Your task to perform on an android device: uninstall "DuckDuckGo Privacy Browser" Image 0: 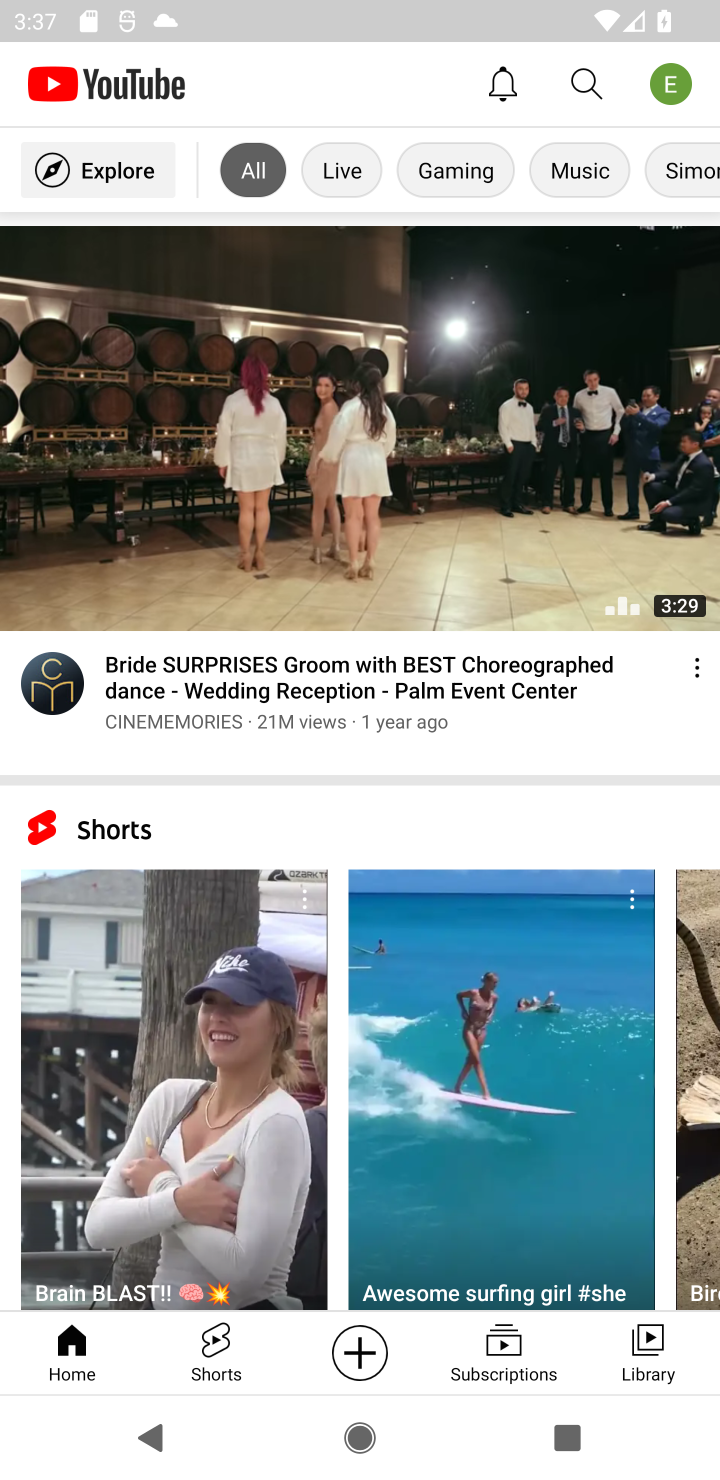
Step 0: press home button
Your task to perform on an android device: uninstall "DuckDuckGo Privacy Browser" Image 1: 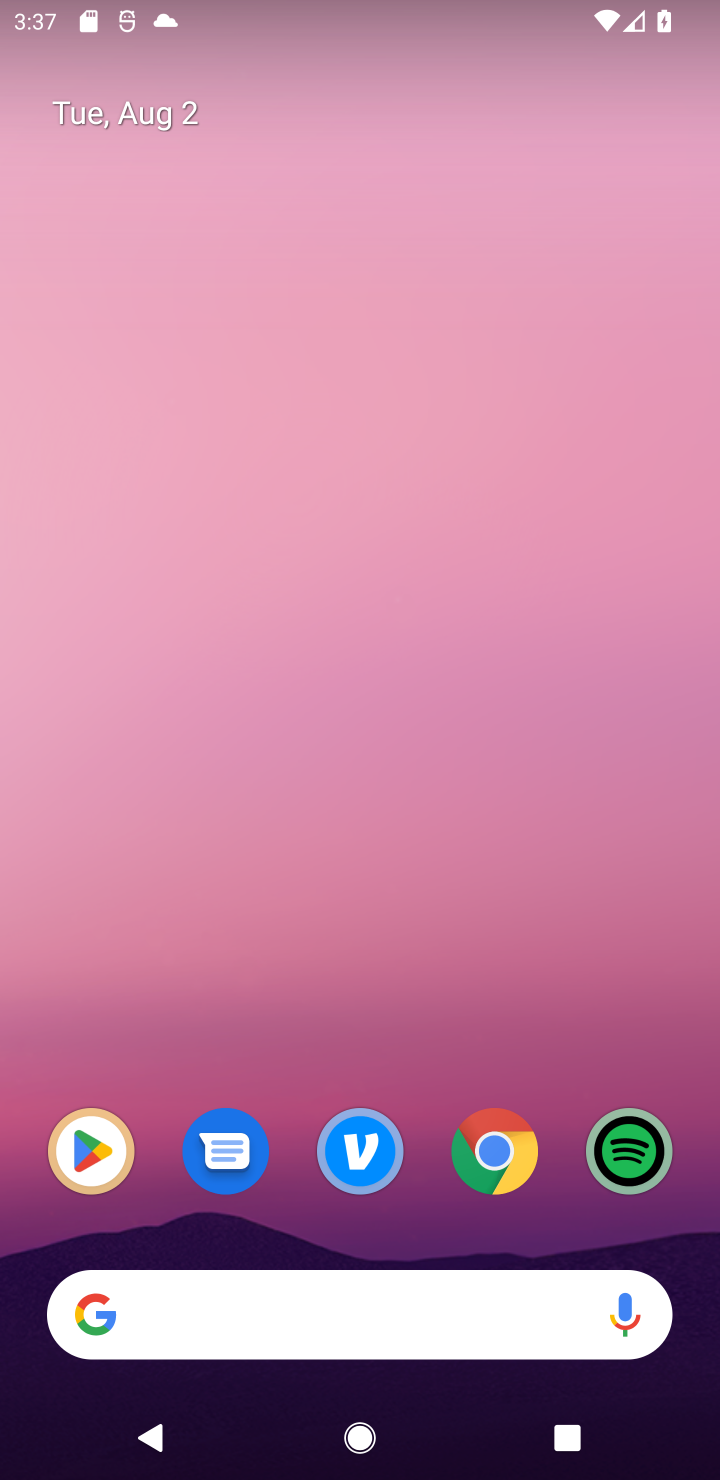
Step 1: click (498, 923)
Your task to perform on an android device: uninstall "DuckDuckGo Privacy Browser" Image 2: 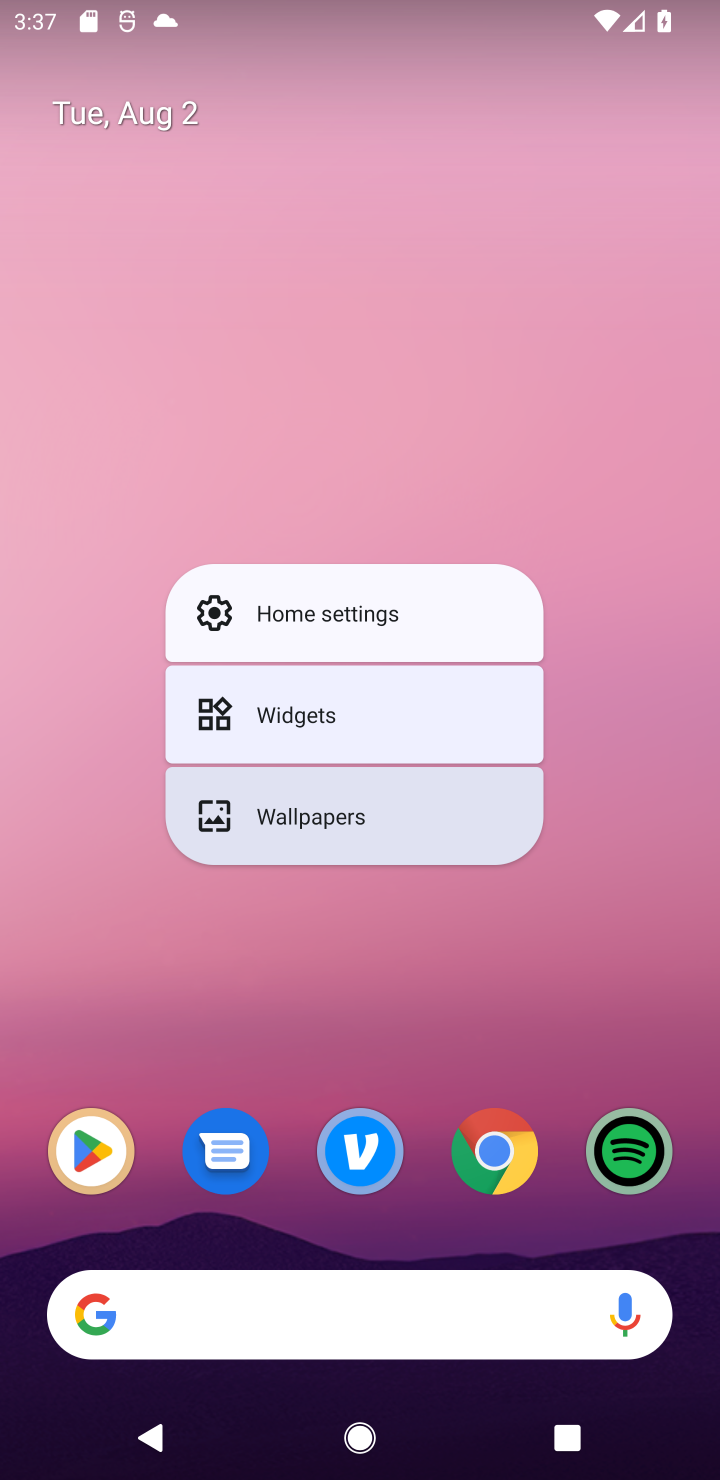
Step 2: click (656, 940)
Your task to perform on an android device: uninstall "DuckDuckGo Privacy Browser" Image 3: 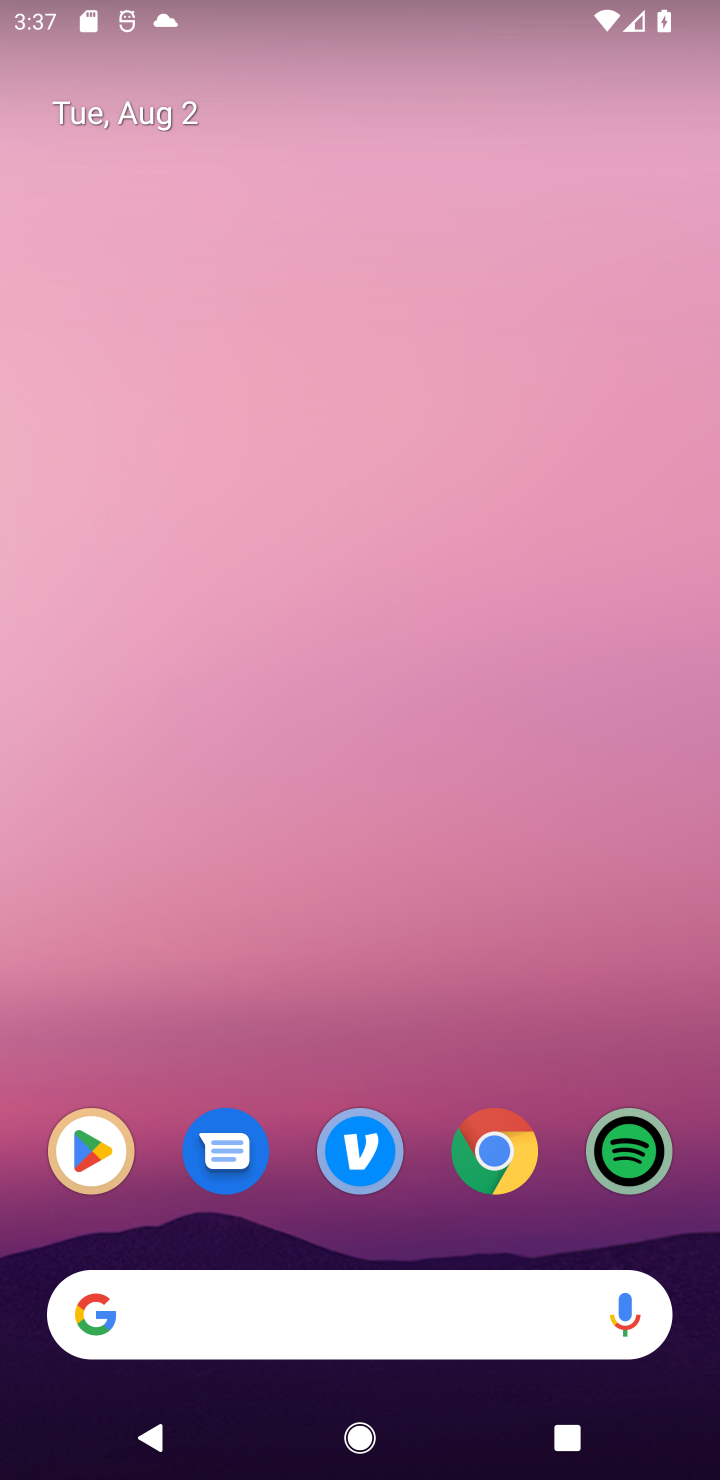
Step 3: drag from (319, 1322) to (332, 368)
Your task to perform on an android device: uninstall "DuckDuckGo Privacy Browser" Image 4: 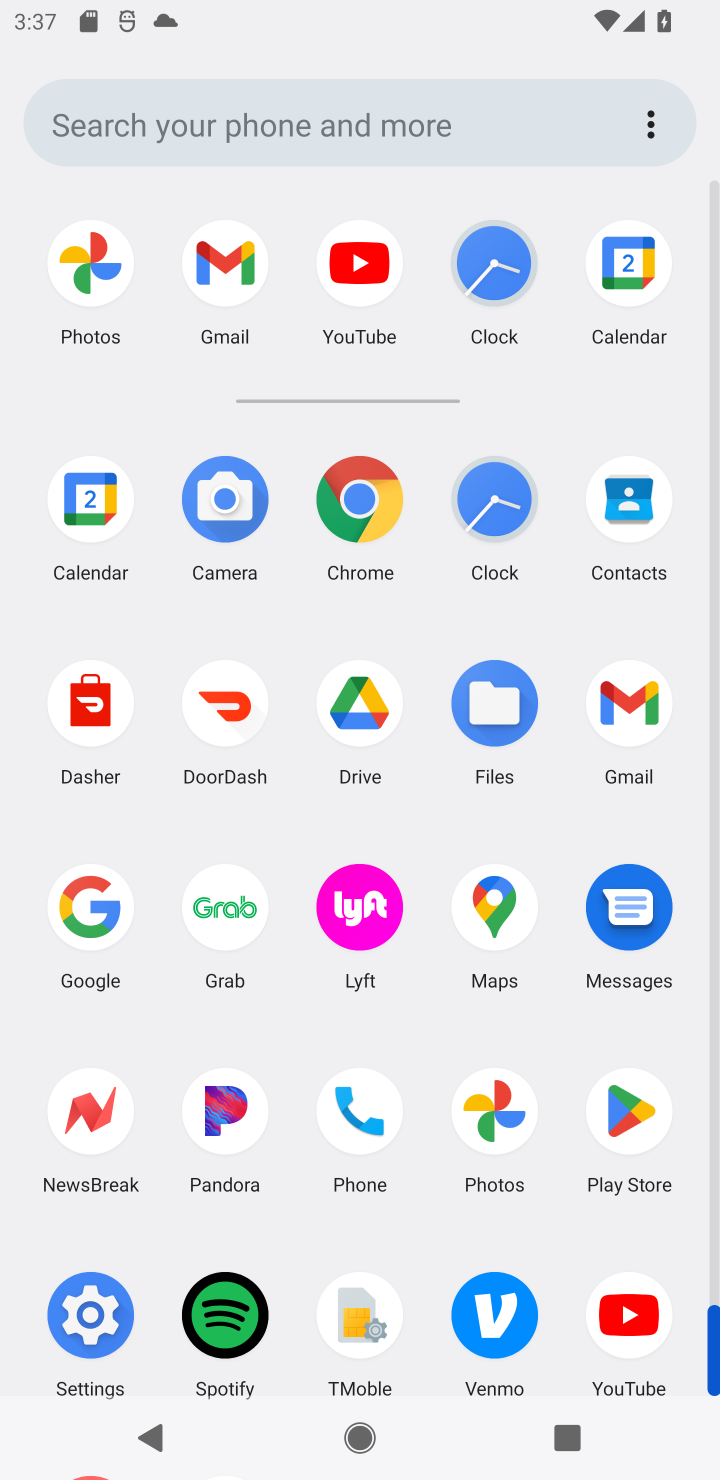
Step 4: click (628, 1142)
Your task to perform on an android device: uninstall "DuckDuckGo Privacy Browser" Image 5: 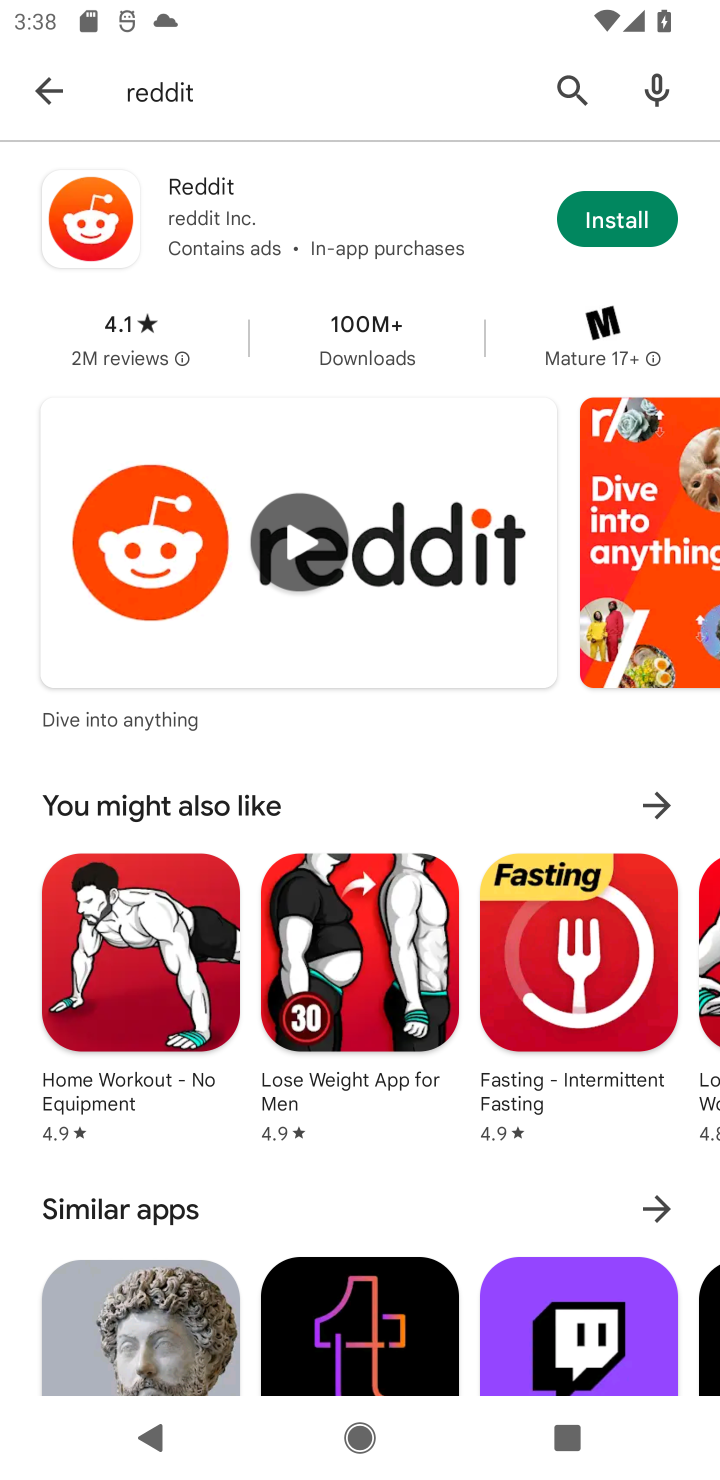
Step 5: click (54, 109)
Your task to perform on an android device: uninstall "DuckDuckGo Privacy Browser" Image 6: 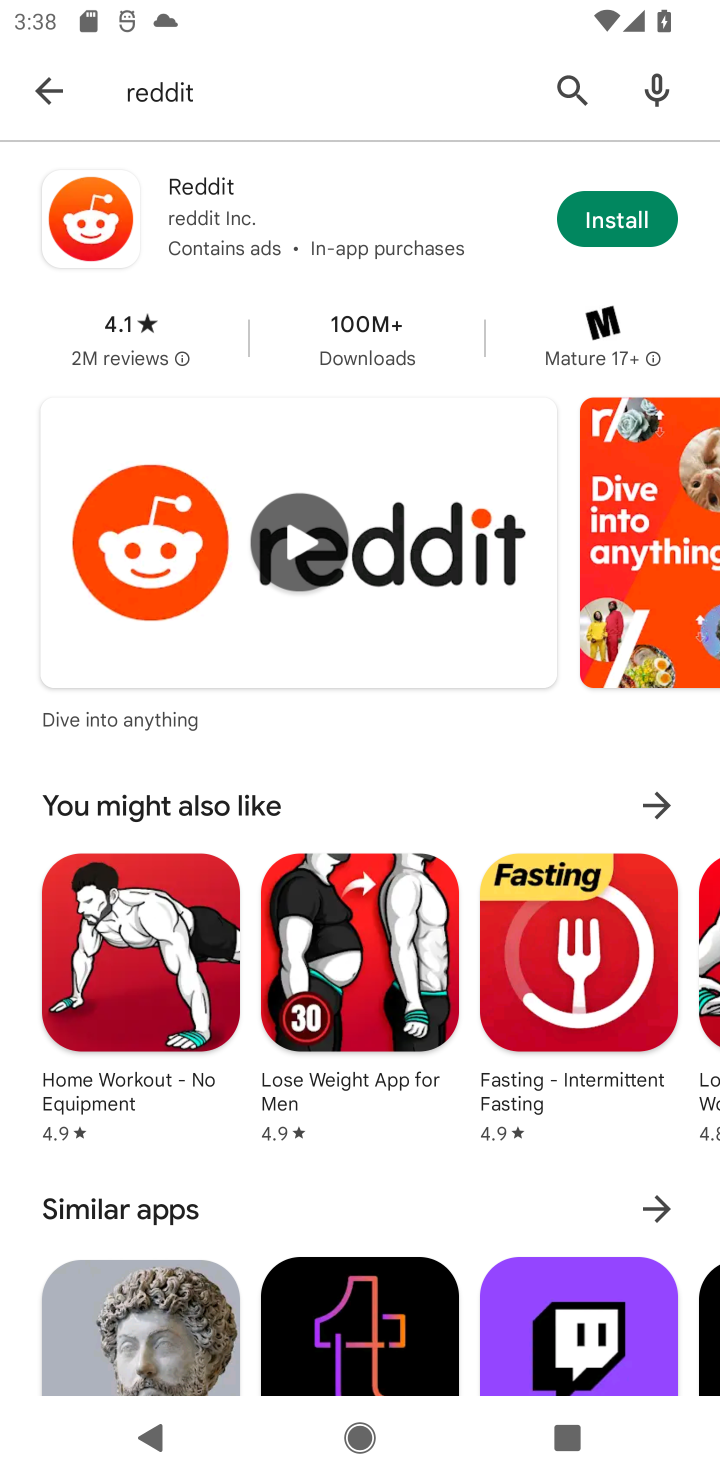
Step 6: click (50, 92)
Your task to perform on an android device: uninstall "DuckDuckGo Privacy Browser" Image 7: 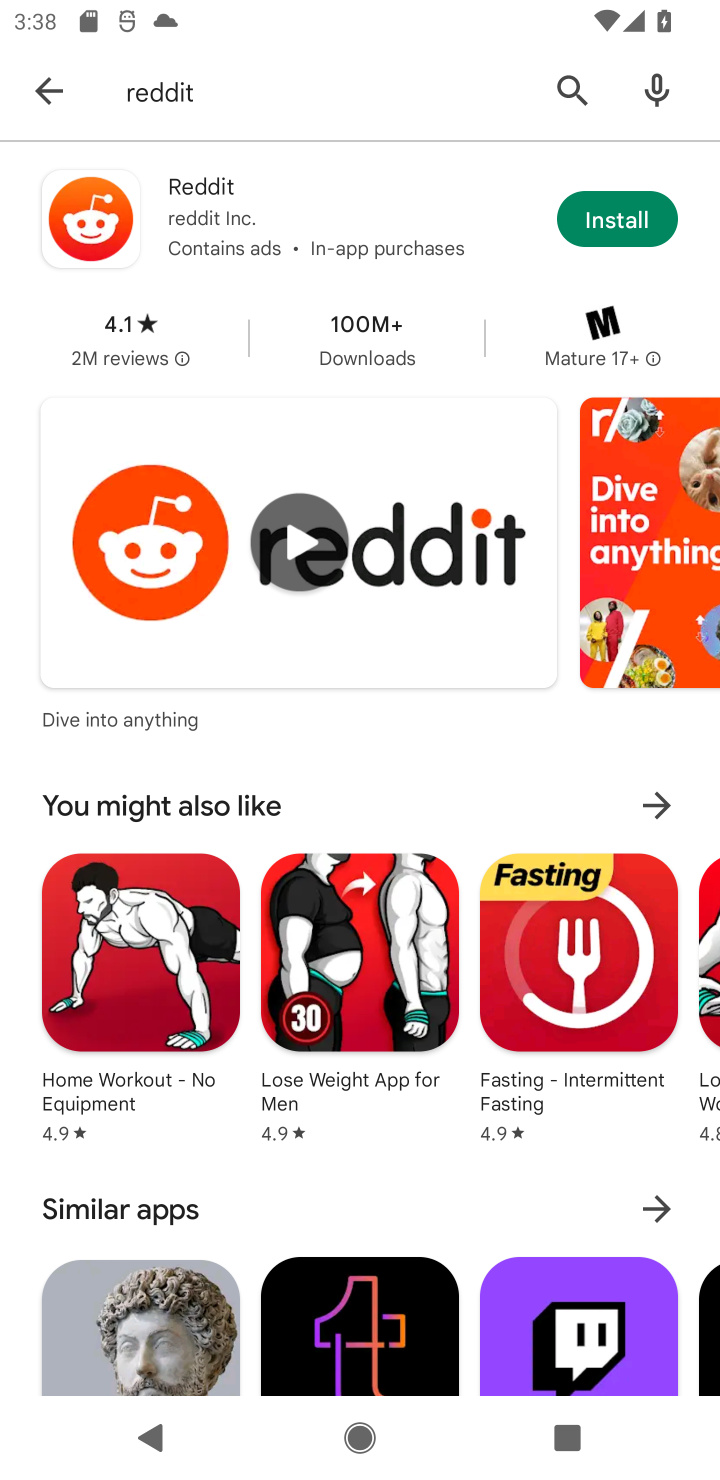
Step 7: click (54, 95)
Your task to perform on an android device: uninstall "DuckDuckGo Privacy Browser" Image 8: 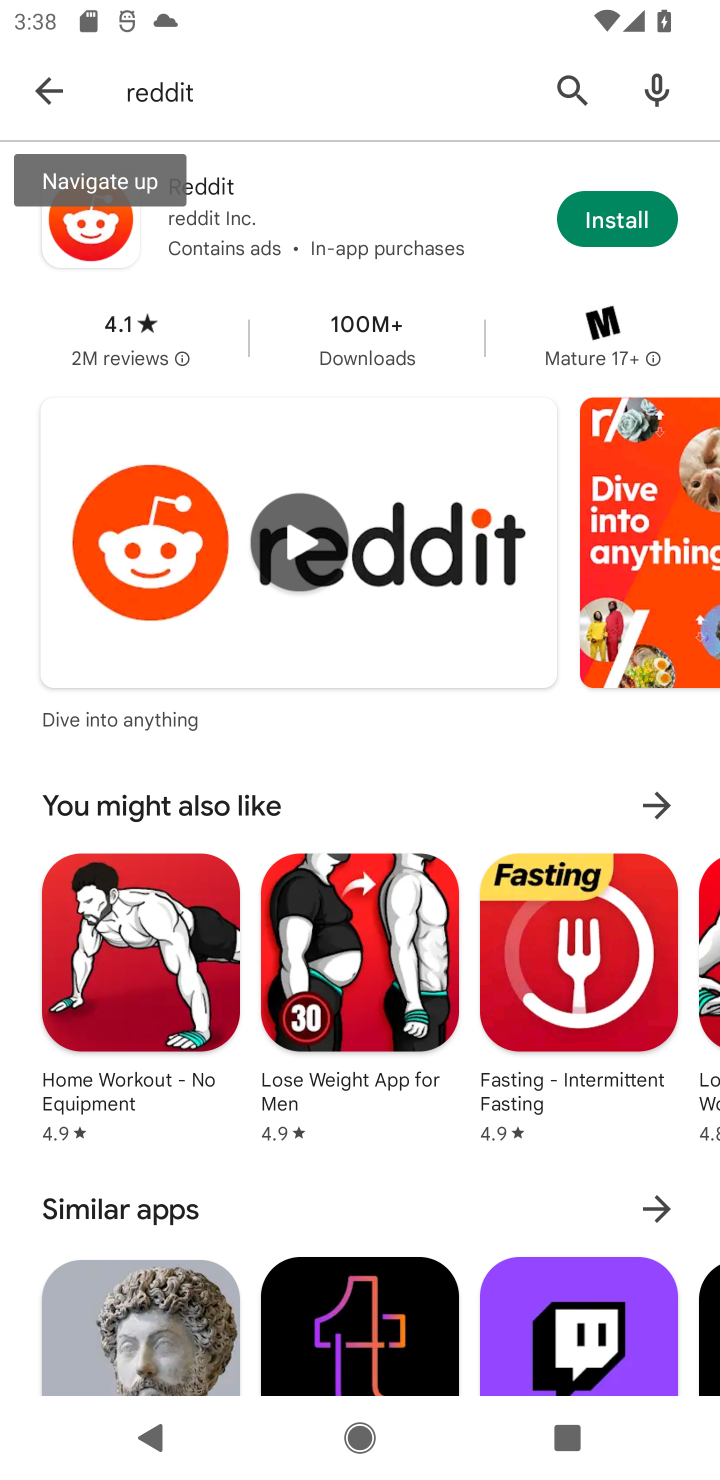
Step 8: click (54, 95)
Your task to perform on an android device: uninstall "DuckDuckGo Privacy Browser" Image 9: 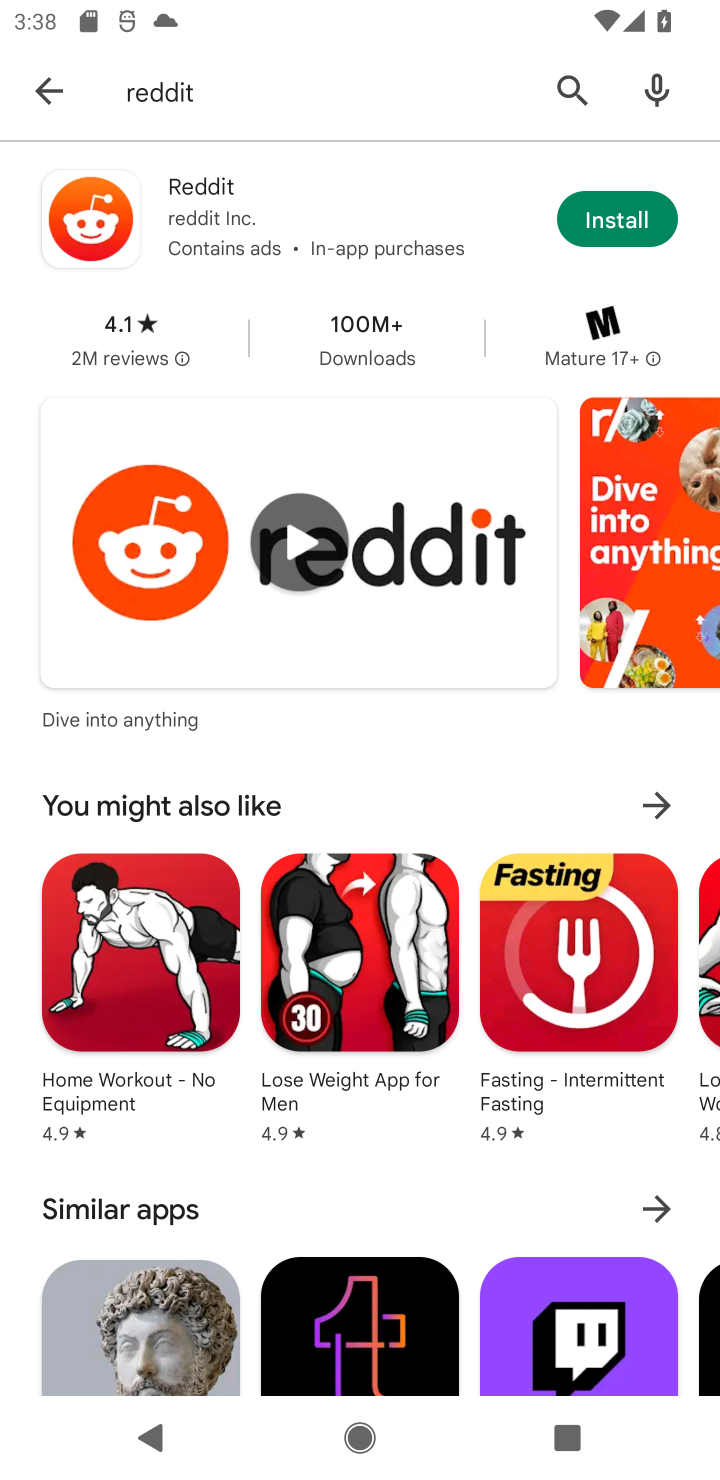
Step 9: drag from (218, 489) to (232, 1417)
Your task to perform on an android device: uninstall "DuckDuckGo Privacy Browser" Image 10: 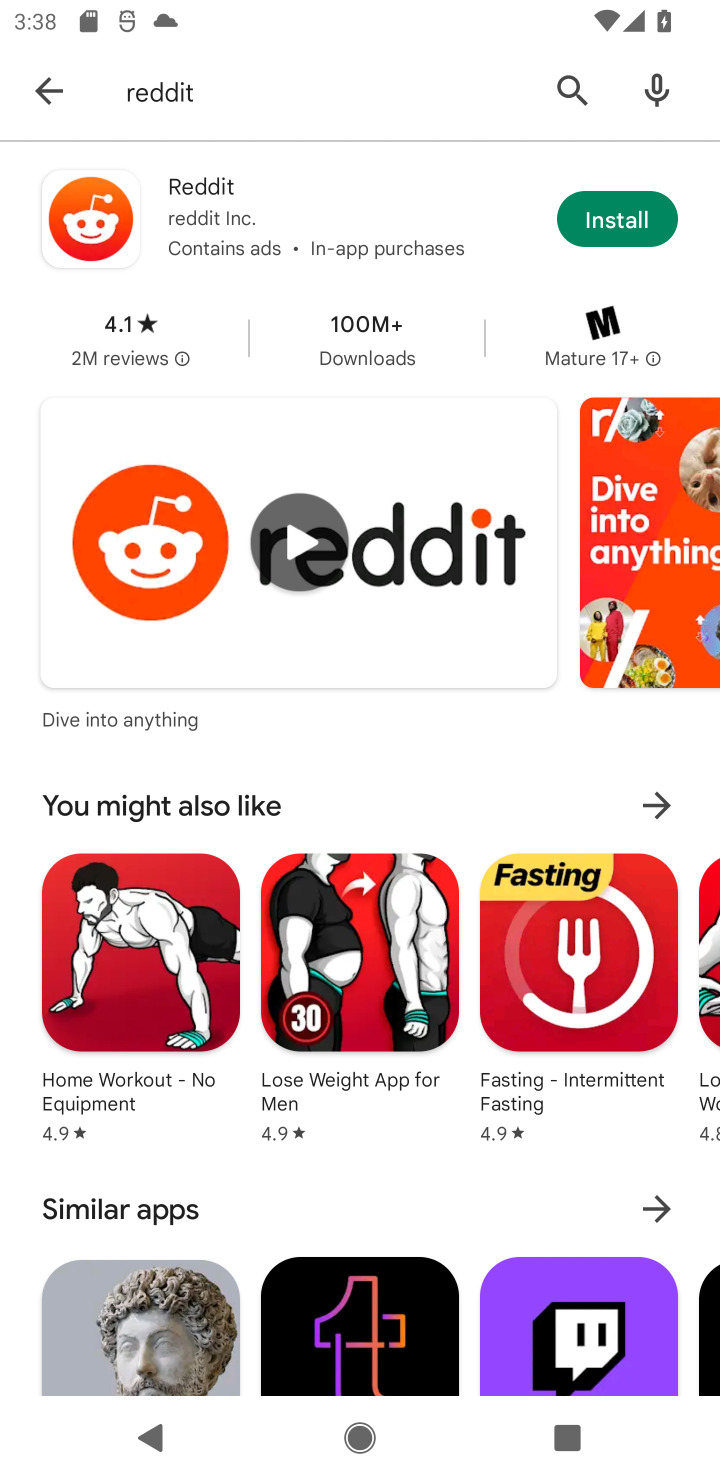
Step 10: click (54, 99)
Your task to perform on an android device: uninstall "DuckDuckGo Privacy Browser" Image 11: 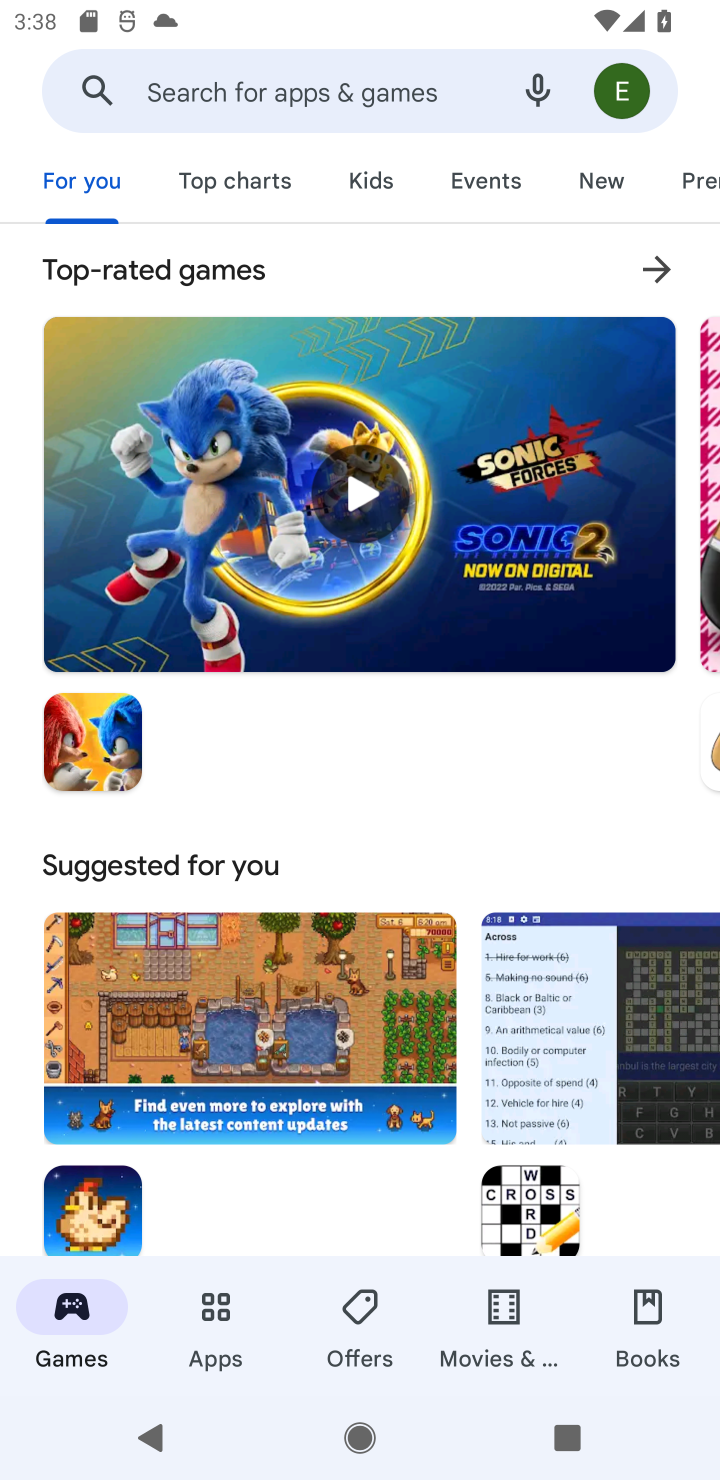
Step 11: click (333, 106)
Your task to perform on an android device: uninstall "DuckDuckGo Privacy Browser" Image 12: 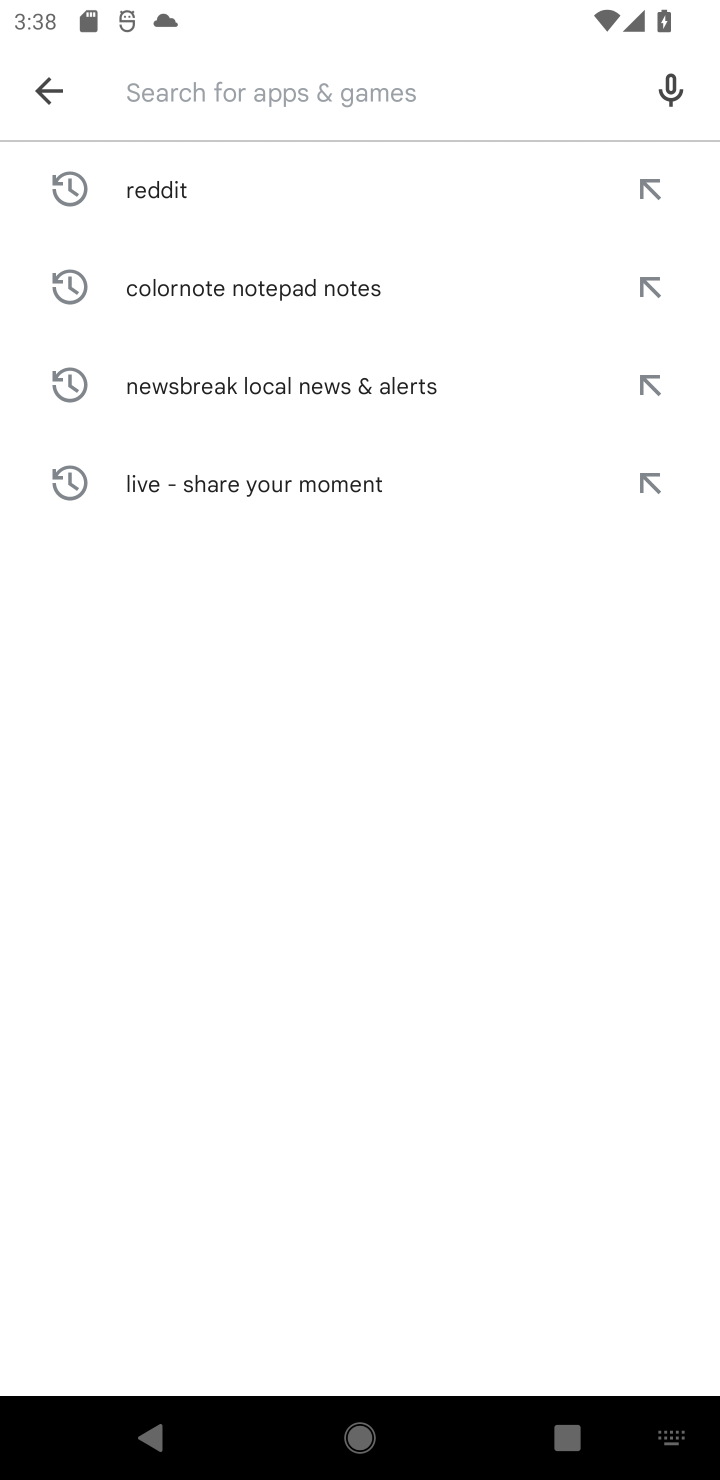
Step 12: type "DuckDuckGo Privacy Browser"
Your task to perform on an android device: uninstall "DuckDuckGo Privacy Browser" Image 13: 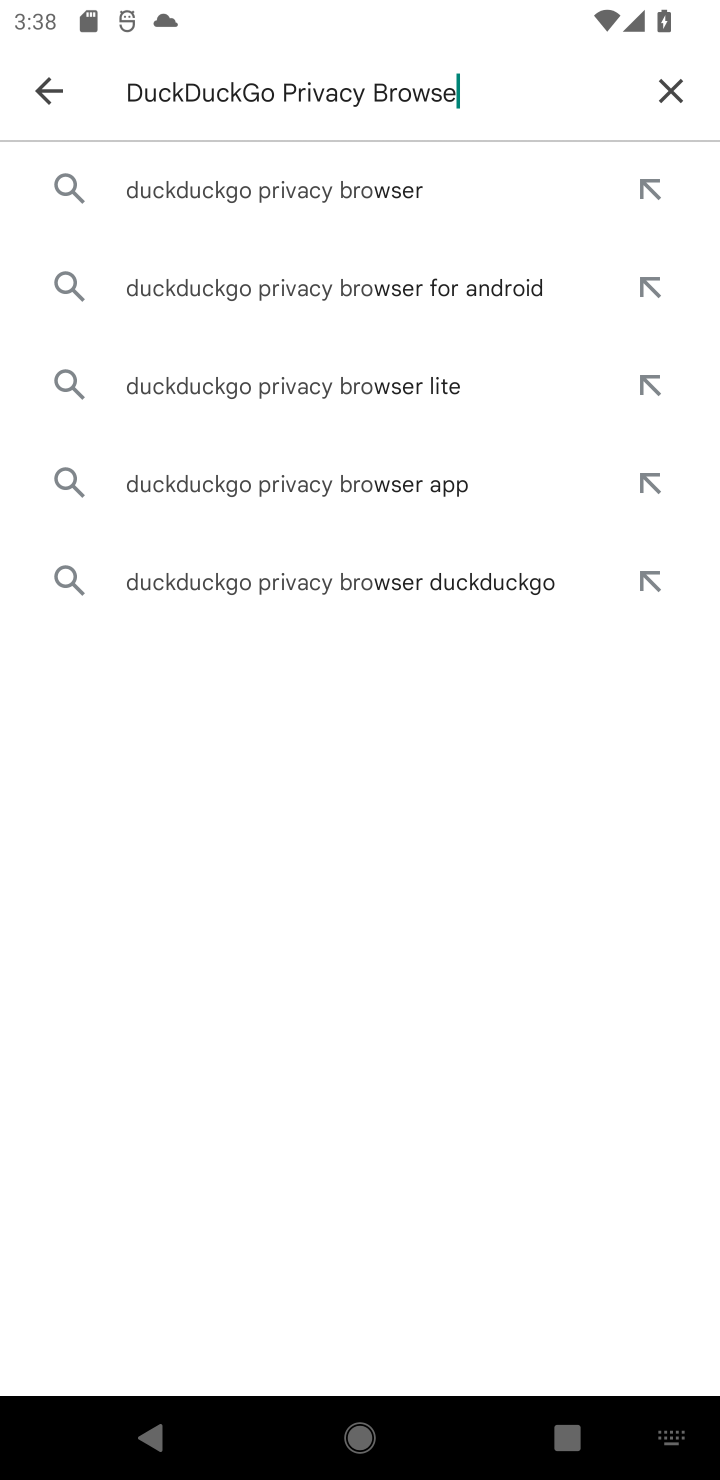
Step 13: type ""
Your task to perform on an android device: uninstall "DuckDuckGo Privacy Browser" Image 14: 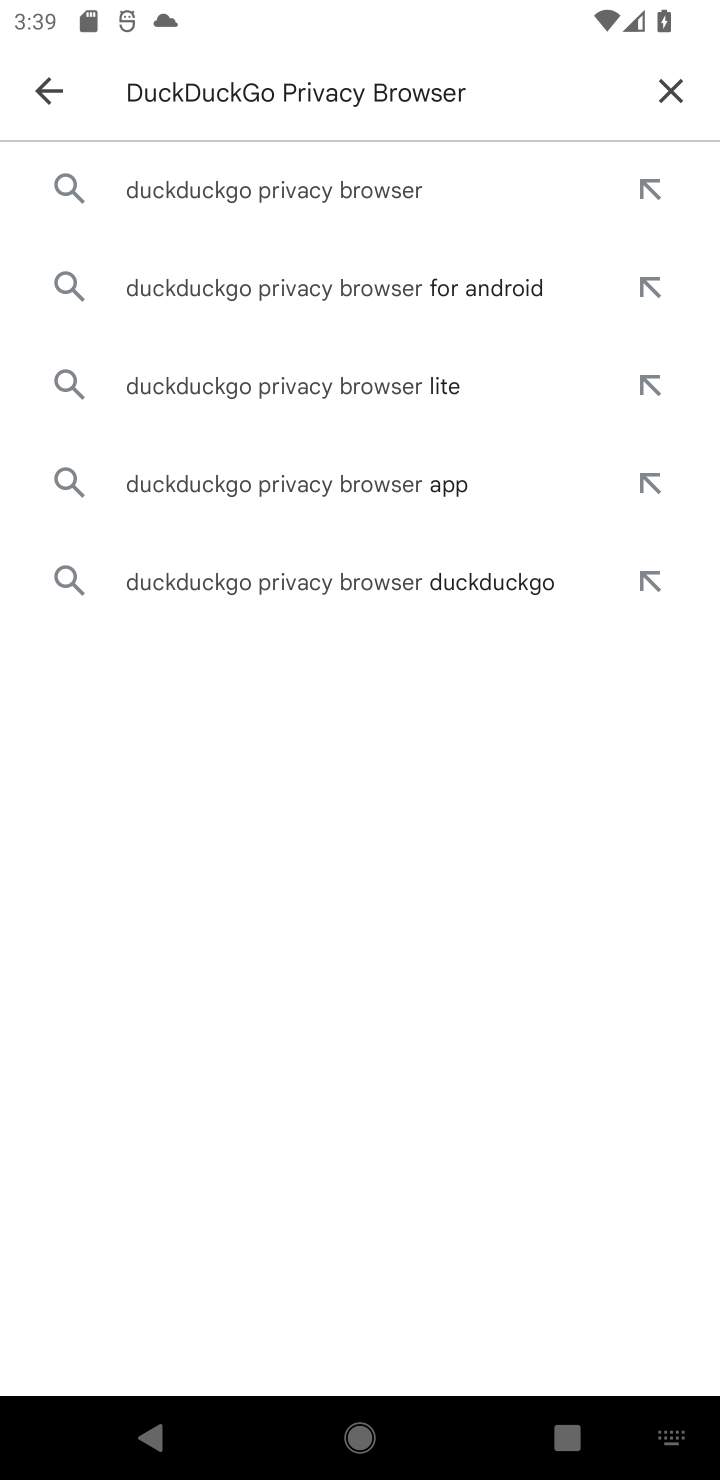
Step 14: click (379, 205)
Your task to perform on an android device: uninstall "DuckDuckGo Privacy Browser" Image 15: 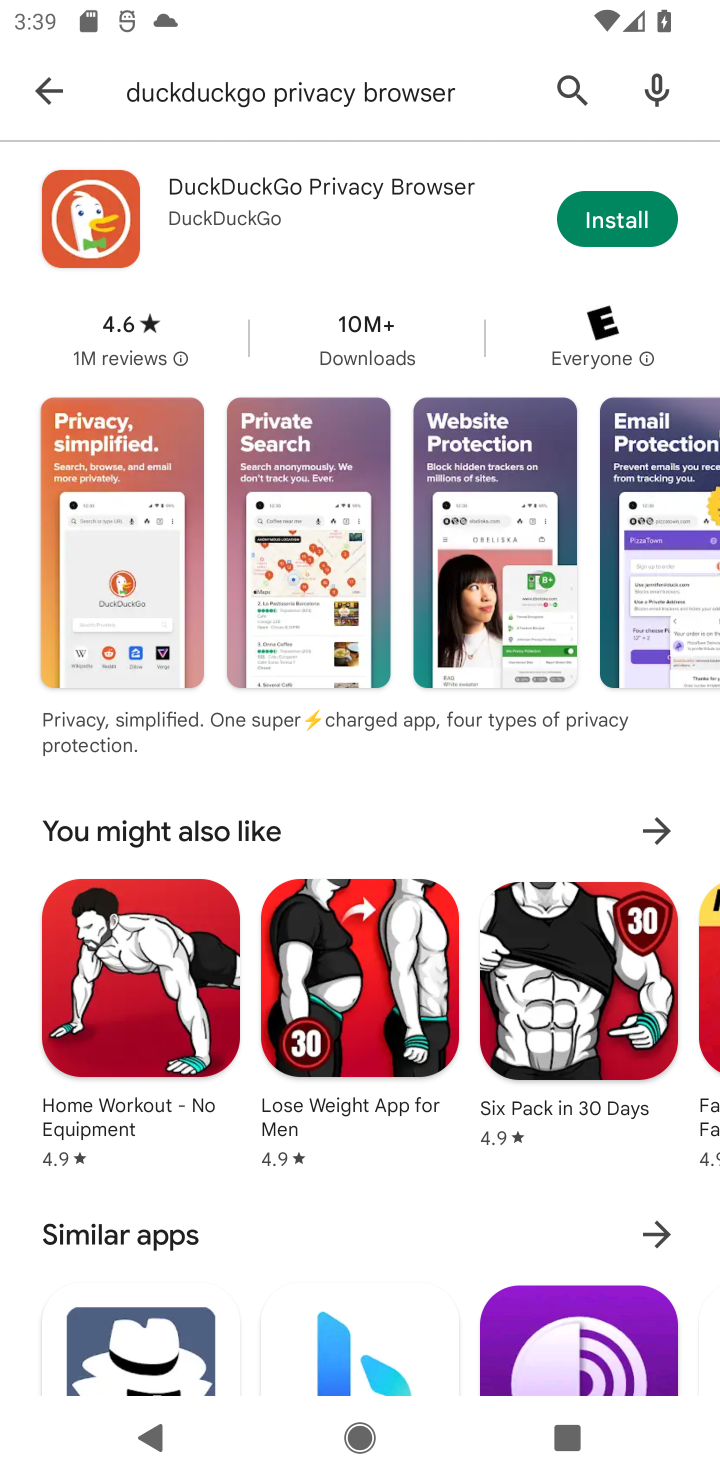
Step 15: task complete